Your task to perform on an android device: set an alarm Image 0: 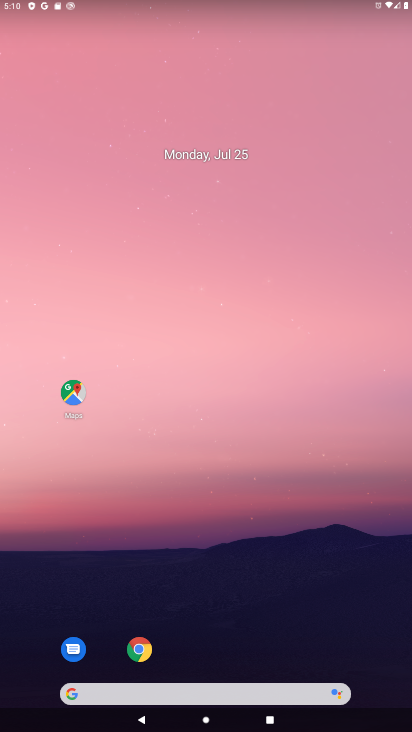
Step 0: drag from (235, 708) to (328, 0)
Your task to perform on an android device: set an alarm Image 1: 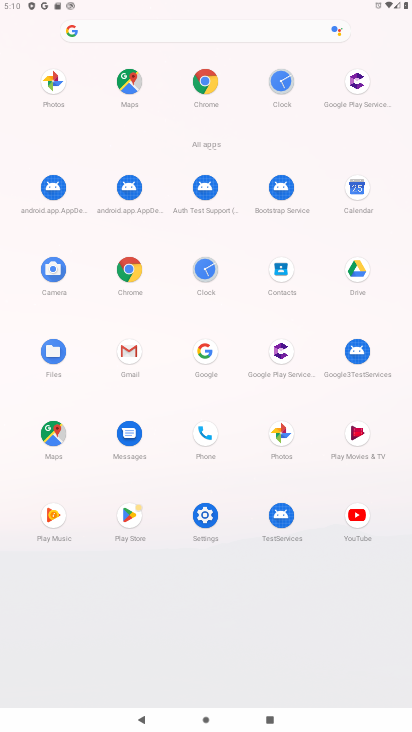
Step 1: click (209, 273)
Your task to perform on an android device: set an alarm Image 2: 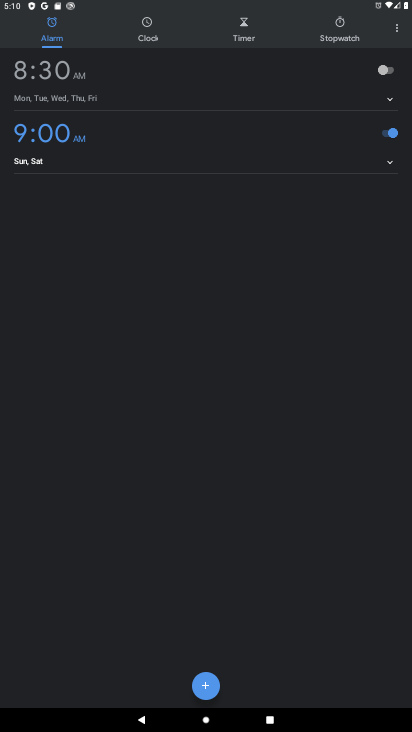
Step 2: click (397, 74)
Your task to perform on an android device: set an alarm Image 3: 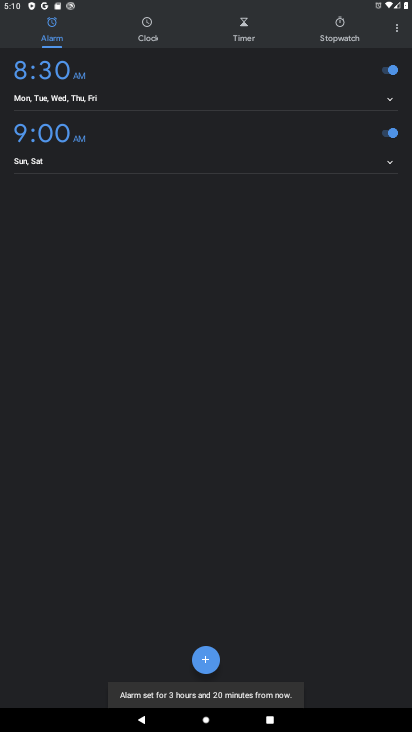
Step 3: task complete